Your task to perform on an android device: Open the phone app and click the voicemail tab. Image 0: 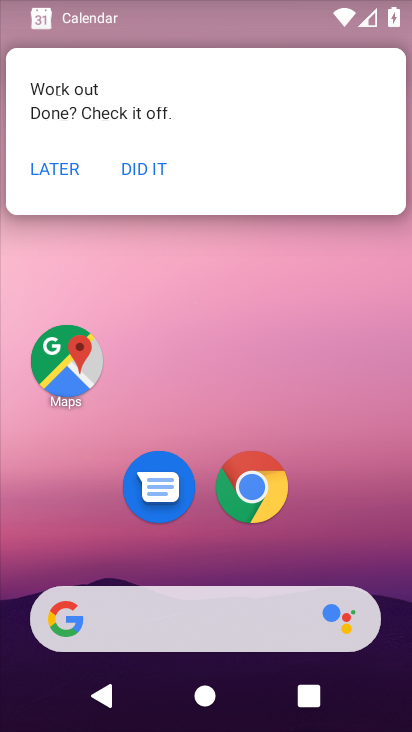
Step 0: drag from (270, 637) to (298, 224)
Your task to perform on an android device: Open the phone app and click the voicemail tab. Image 1: 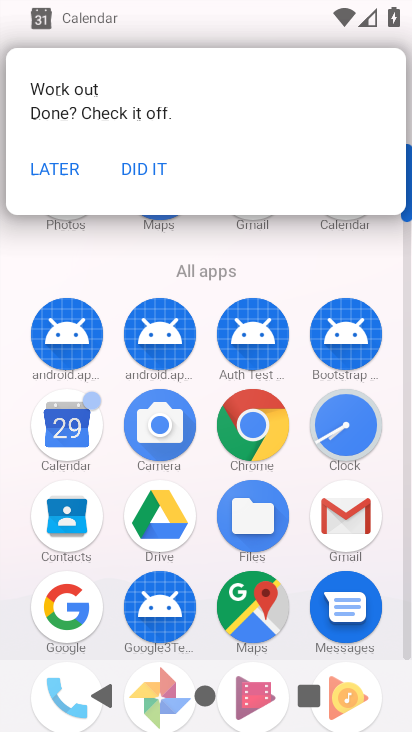
Step 1: drag from (208, 466) to (223, 182)
Your task to perform on an android device: Open the phone app and click the voicemail tab. Image 2: 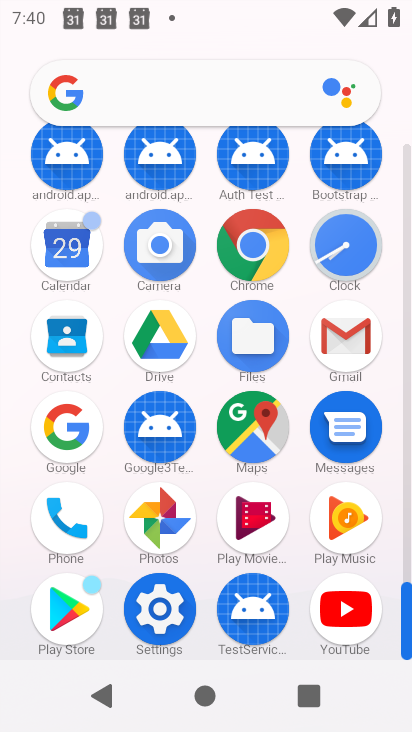
Step 2: click (70, 521)
Your task to perform on an android device: Open the phone app and click the voicemail tab. Image 3: 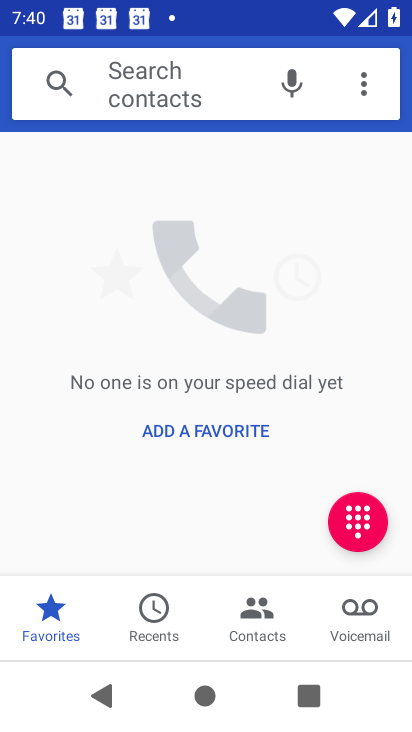
Step 3: click (366, 615)
Your task to perform on an android device: Open the phone app and click the voicemail tab. Image 4: 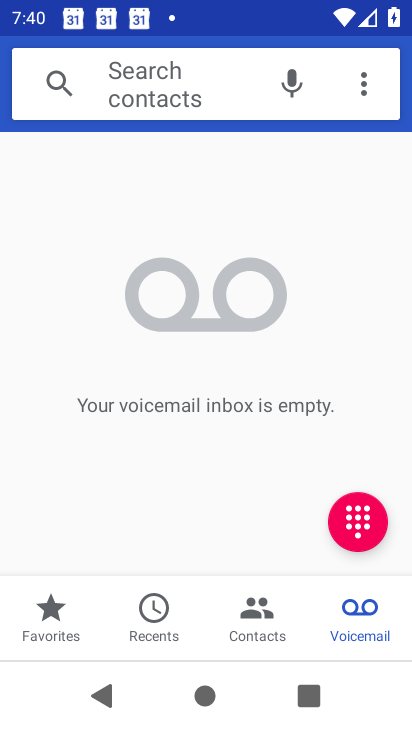
Step 4: task complete